Your task to perform on an android device: see creations saved in the google photos Image 0: 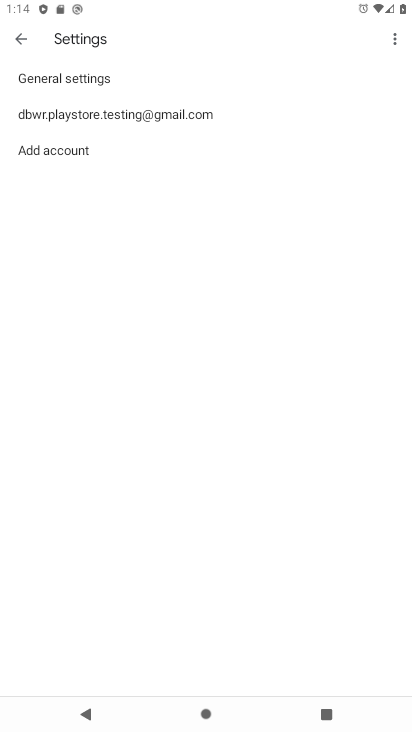
Step 0: press home button
Your task to perform on an android device: see creations saved in the google photos Image 1: 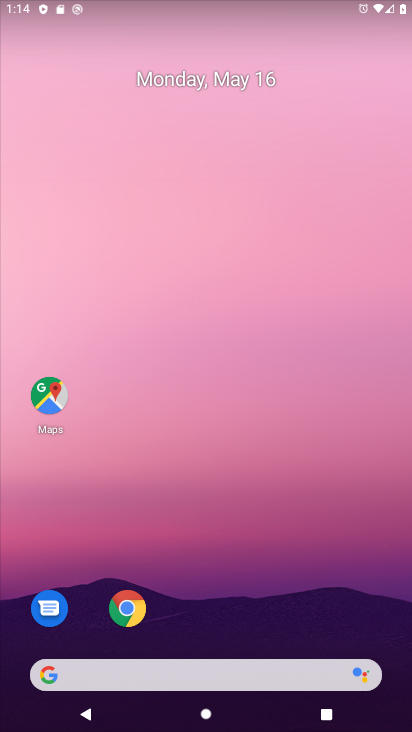
Step 1: drag from (262, 552) to (266, 15)
Your task to perform on an android device: see creations saved in the google photos Image 2: 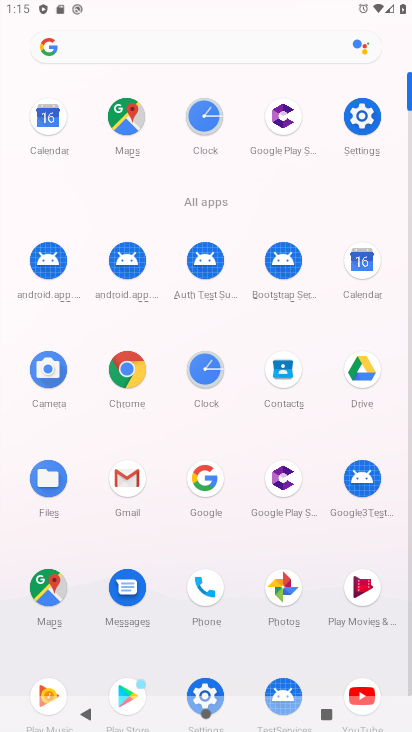
Step 2: click (285, 590)
Your task to perform on an android device: see creations saved in the google photos Image 3: 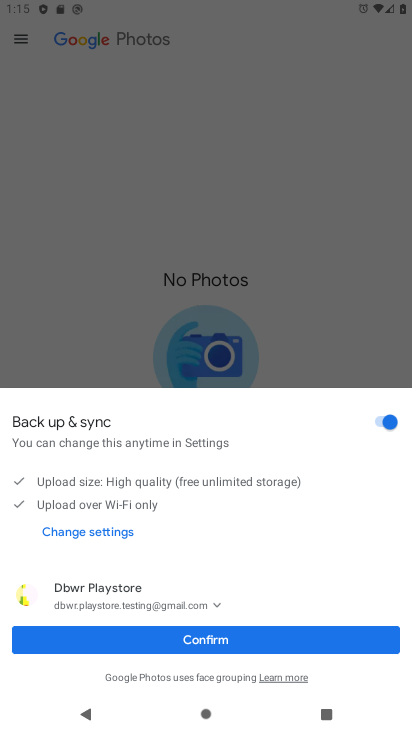
Step 3: click (288, 644)
Your task to perform on an android device: see creations saved in the google photos Image 4: 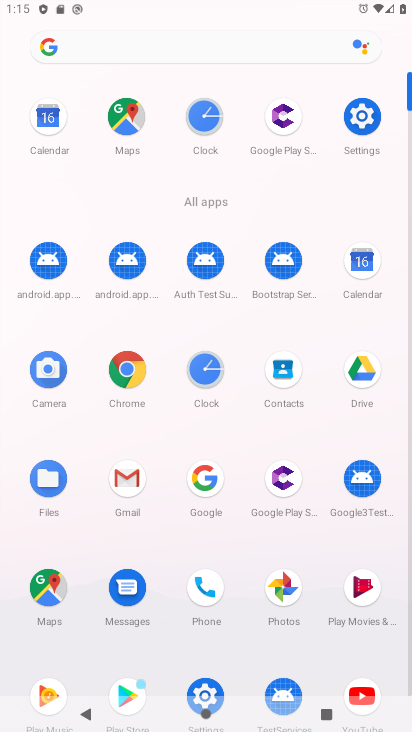
Step 4: click (288, 592)
Your task to perform on an android device: see creations saved in the google photos Image 5: 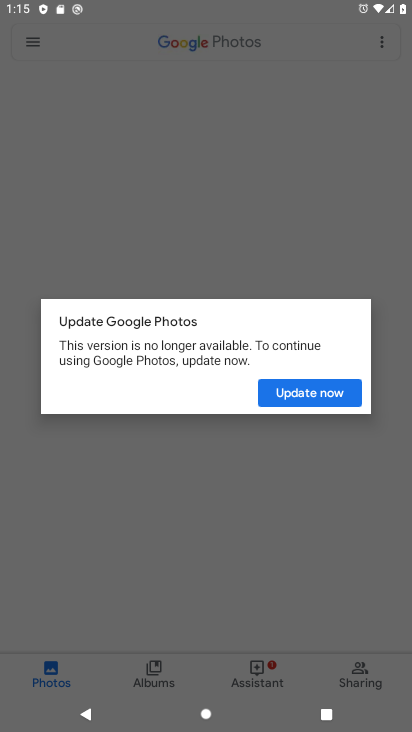
Step 5: click (316, 404)
Your task to perform on an android device: see creations saved in the google photos Image 6: 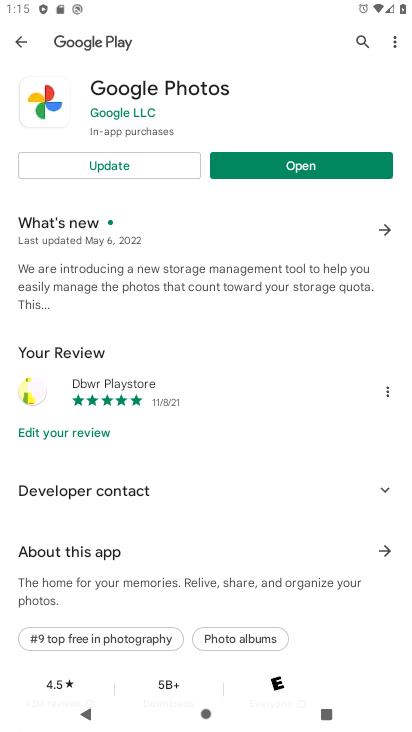
Step 6: click (77, 159)
Your task to perform on an android device: see creations saved in the google photos Image 7: 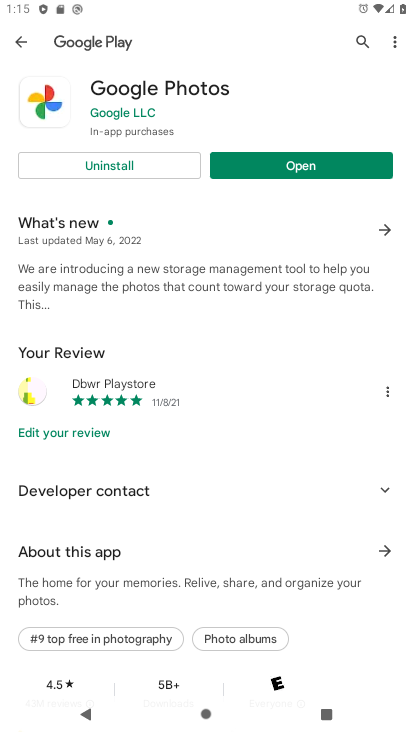
Step 7: click (318, 172)
Your task to perform on an android device: see creations saved in the google photos Image 8: 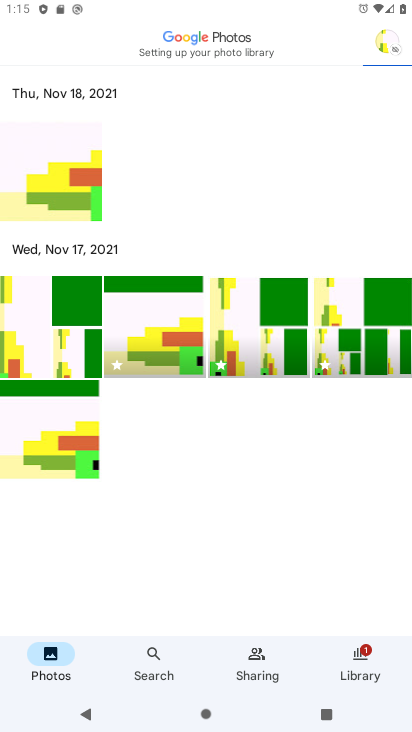
Step 8: click (165, 657)
Your task to perform on an android device: see creations saved in the google photos Image 9: 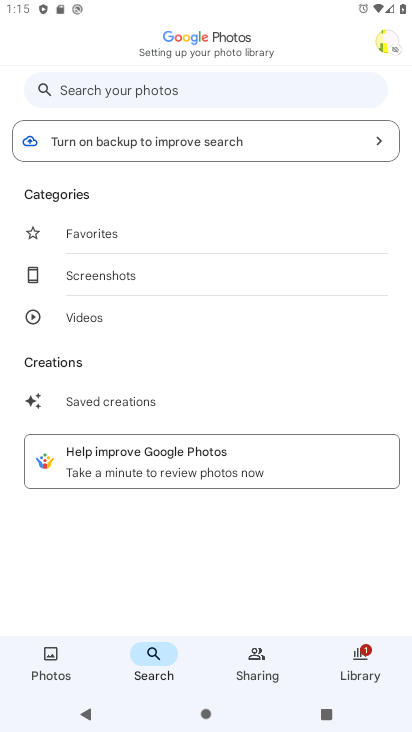
Step 9: click (112, 409)
Your task to perform on an android device: see creations saved in the google photos Image 10: 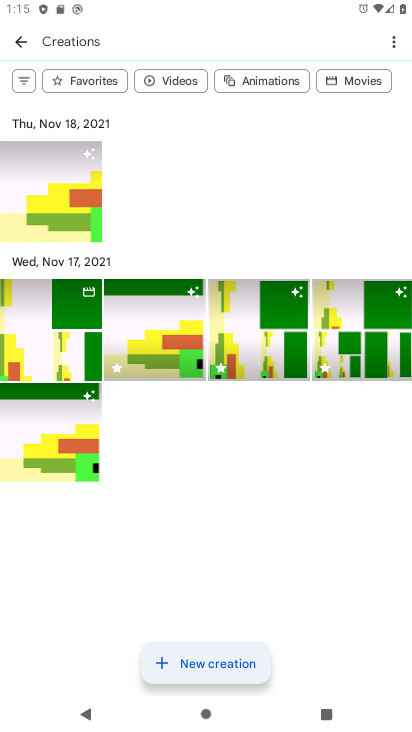
Step 10: task complete